Your task to perform on an android device: turn off sleep mode Image 0: 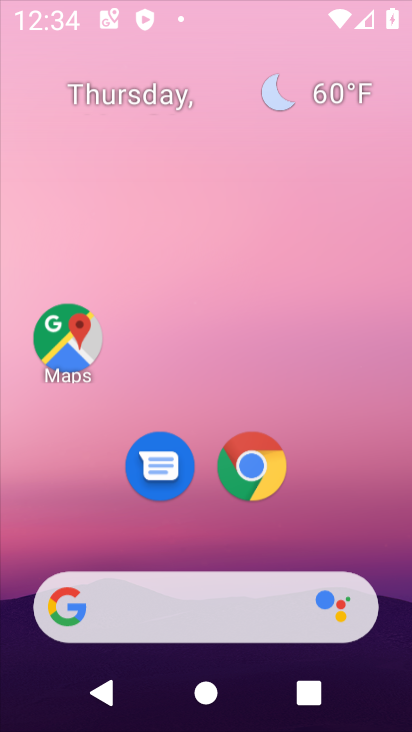
Step 0: click (237, 61)
Your task to perform on an android device: turn off sleep mode Image 1: 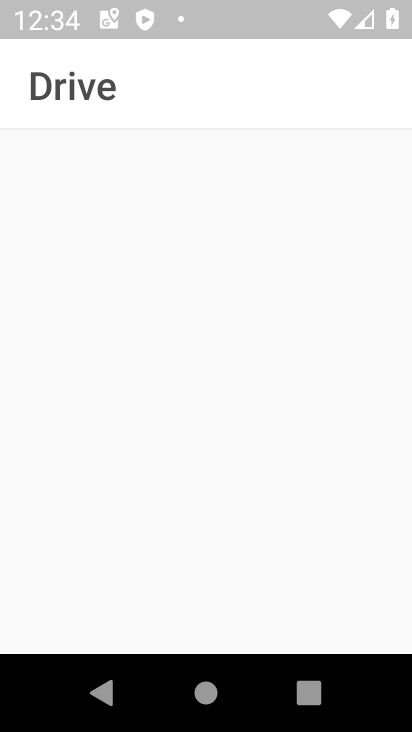
Step 1: press home button
Your task to perform on an android device: turn off sleep mode Image 2: 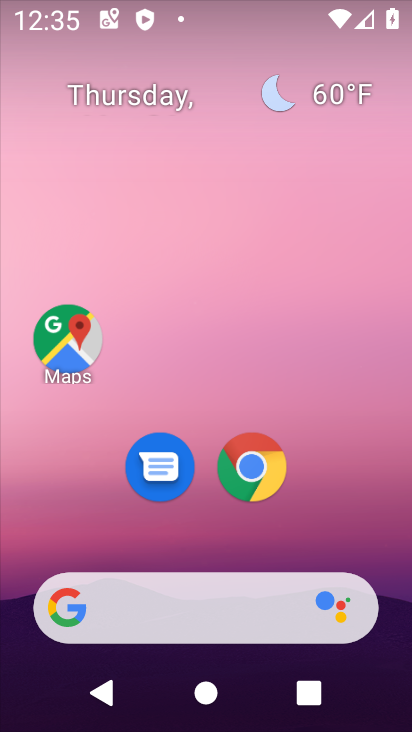
Step 2: drag from (210, 518) to (202, 81)
Your task to perform on an android device: turn off sleep mode Image 3: 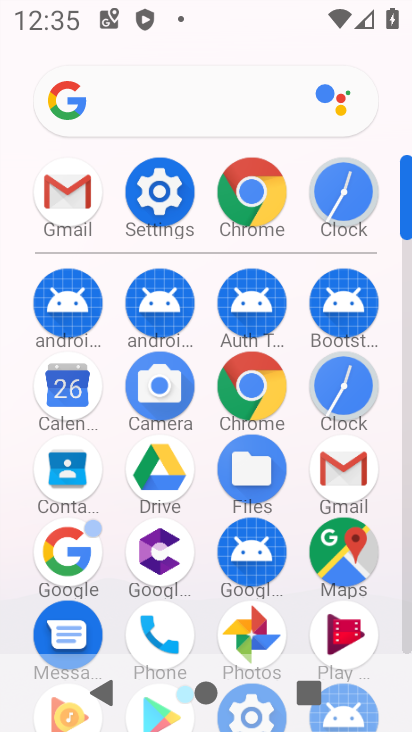
Step 3: click (165, 205)
Your task to perform on an android device: turn off sleep mode Image 4: 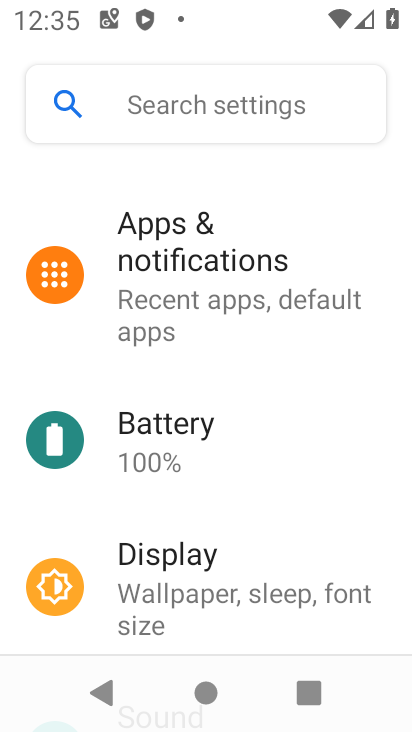
Step 4: click (198, 101)
Your task to perform on an android device: turn off sleep mode Image 5: 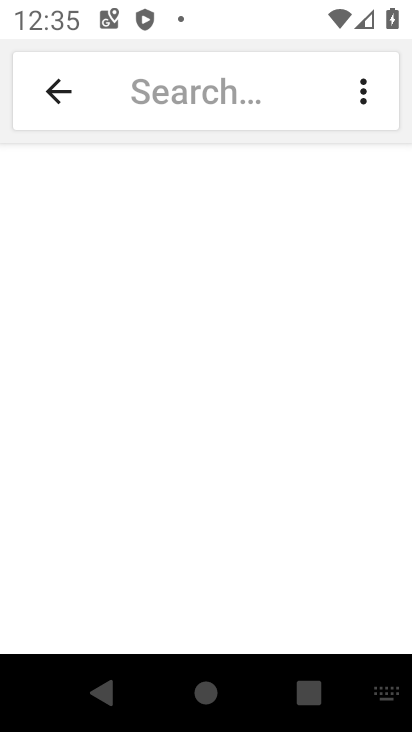
Step 5: type "sleep mode"
Your task to perform on an android device: turn off sleep mode Image 6: 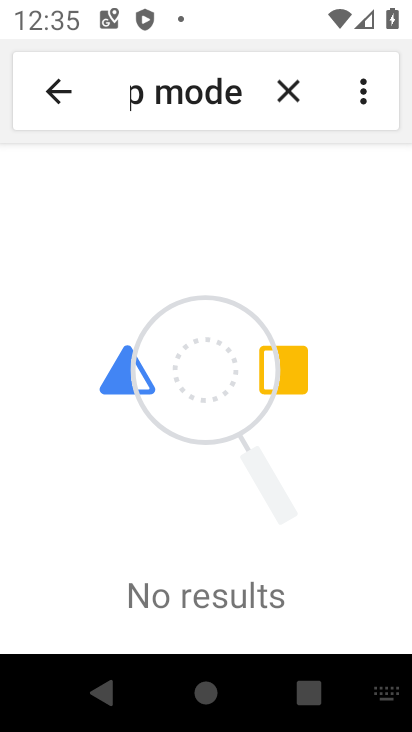
Step 6: task complete